Your task to perform on an android device: see tabs open on other devices in the chrome app Image 0: 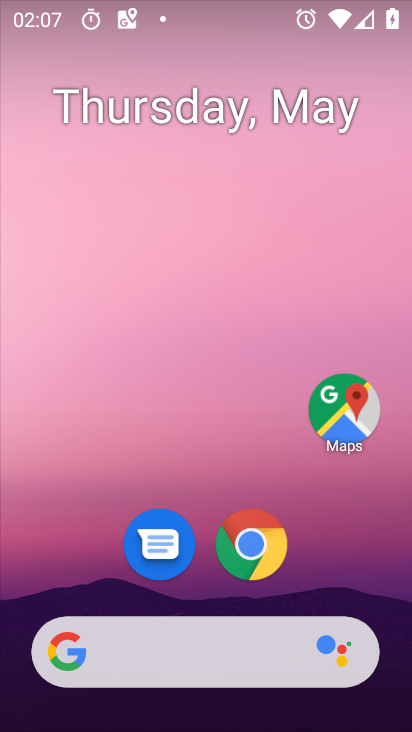
Step 0: drag from (390, 586) to (399, 270)
Your task to perform on an android device: see tabs open on other devices in the chrome app Image 1: 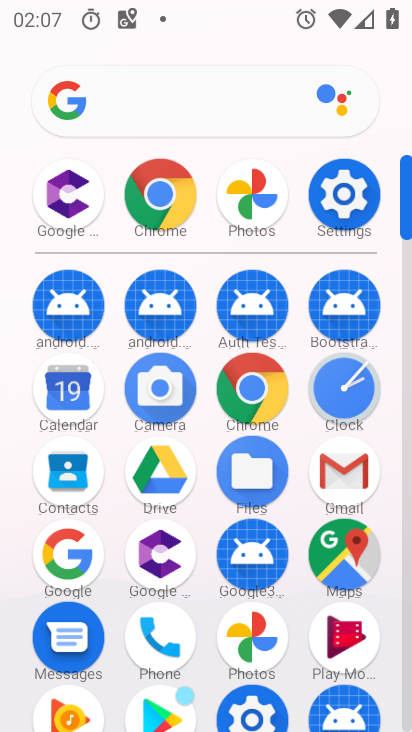
Step 1: click (263, 395)
Your task to perform on an android device: see tabs open on other devices in the chrome app Image 2: 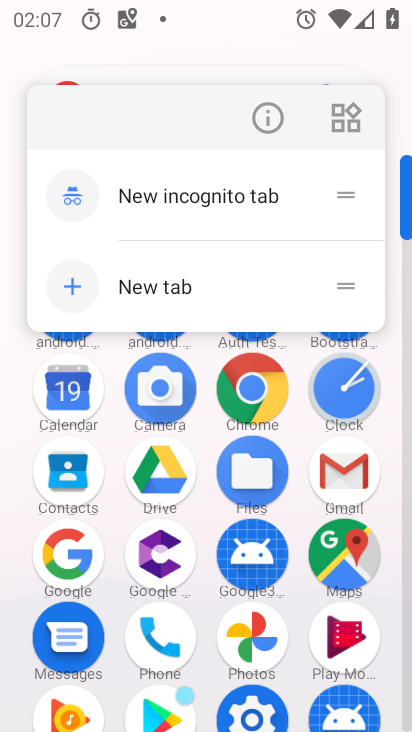
Step 2: click (262, 394)
Your task to perform on an android device: see tabs open on other devices in the chrome app Image 3: 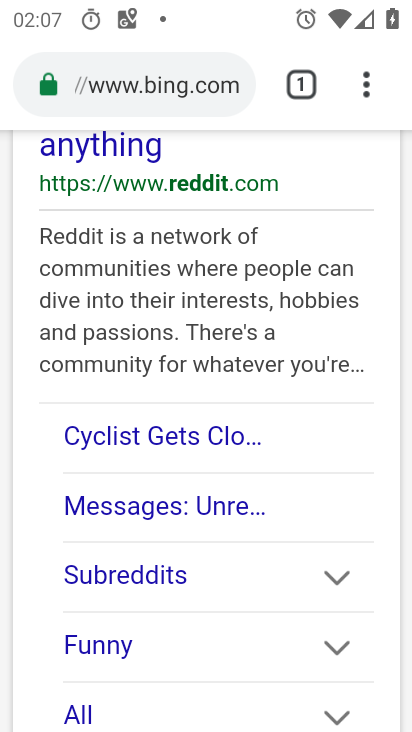
Step 3: click (364, 94)
Your task to perform on an android device: see tabs open on other devices in the chrome app Image 4: 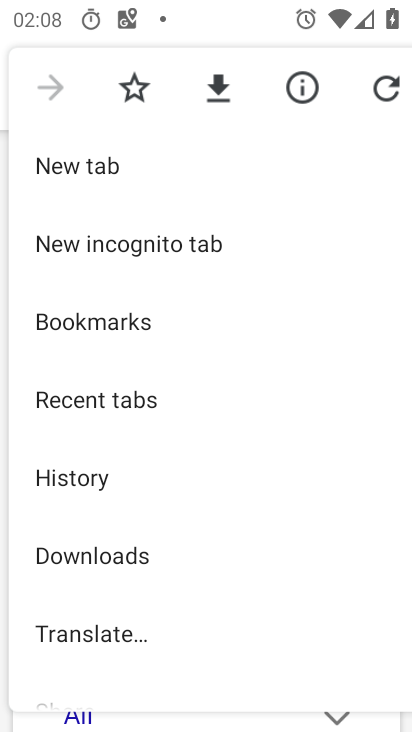
Step 4: click (87, 411)
Your task to perform on an android device: see tabs open on other devices in the chrome app Image 5: 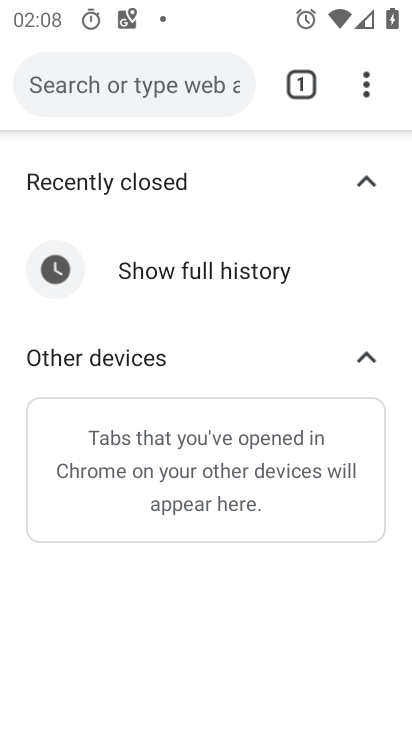
Step 5: click (304, 92)
Your task to perform on an android device: see tabs open on other devices in the chrome app Image 6: 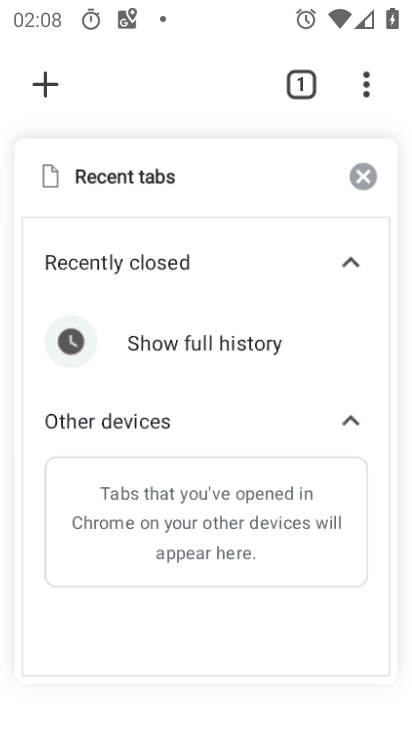
Step 6: task complete